Your task to perform on an android device: turn off sleep mode Image 0: 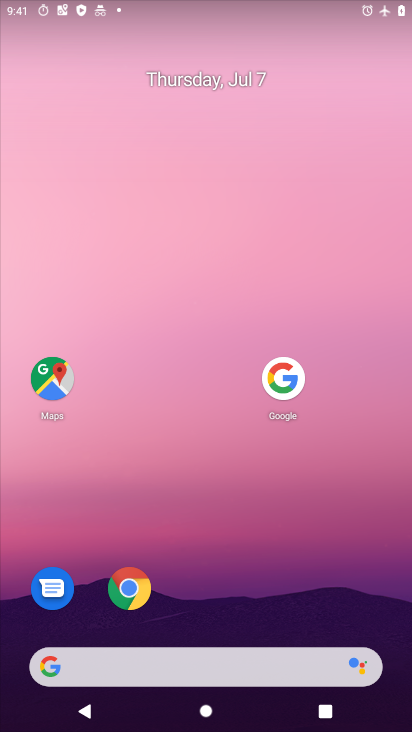
Step 0: drag from (229, 665) to (297, 248)
Your task to perform on an android device: turn off sleep mode Image 1: 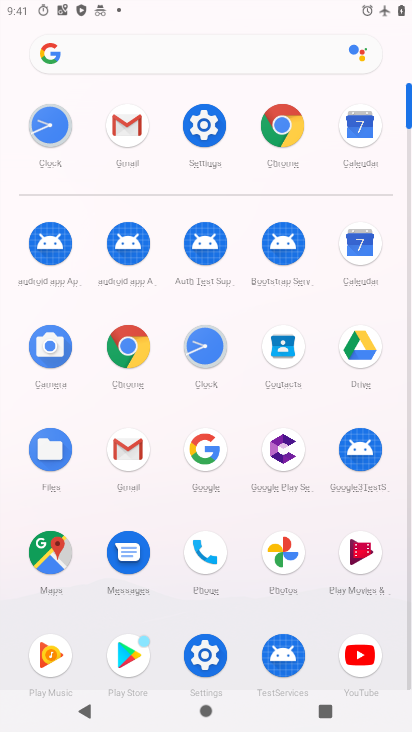
Step 1: click (204, 125)
Your task to perform on an android device: turn off sleep mode Image 2: 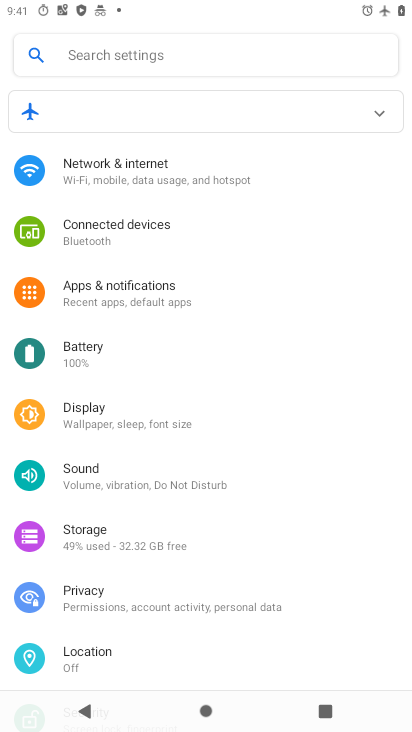
Step 2: click (103, 417)
Your task to perform on an android device: turn off sleep mode Image 3: 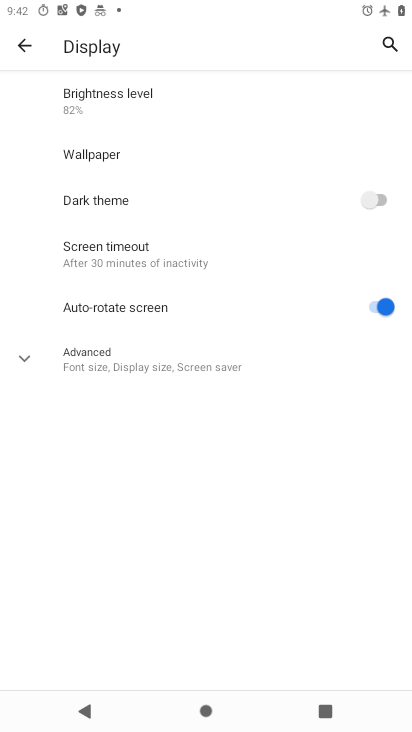
Step 3: task complete